Your task to perform on an android device: turn off notifications settings in the gmail app Image 0: 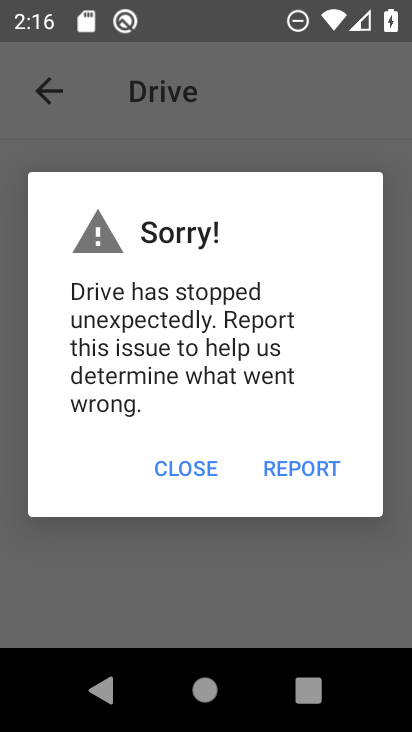
Step 0: press home button
Your task to perform on an android device: turn off notifications settings in the gmail app Image 1: 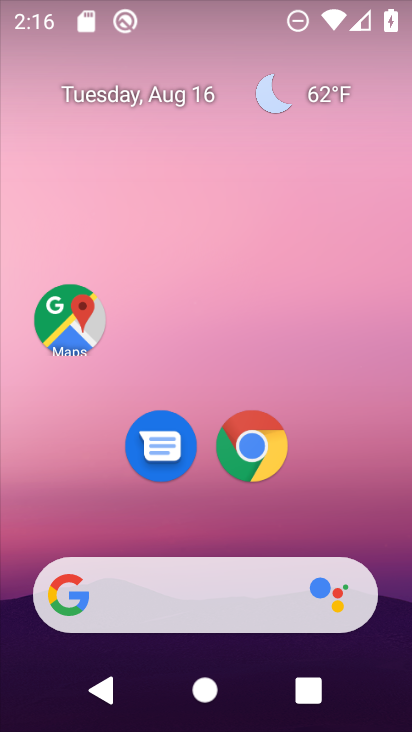
Step 1: drag from (204, 530) to (214, 82)
Your task to perform on an android device: turn off notifications settings in the gmail app Image 2: 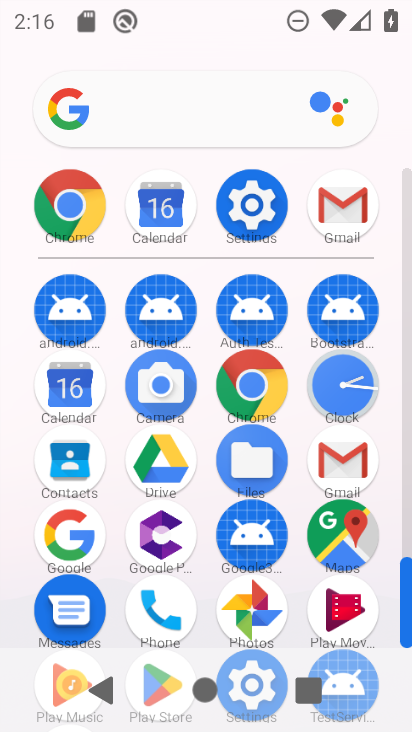
Step 2: click (335, 452)
Your task to perform on an android device: turn off notifications settings in the gmail app Image 3: 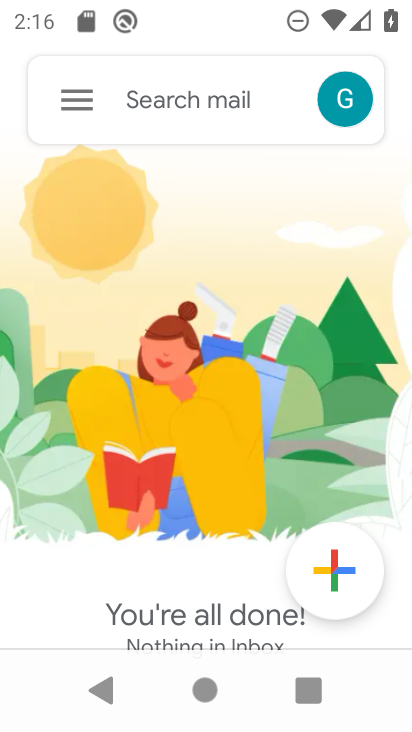
Step 3: click (75, 97)
Your task to perform on an android device: turn off notifications settings in the gmail app Image 4: 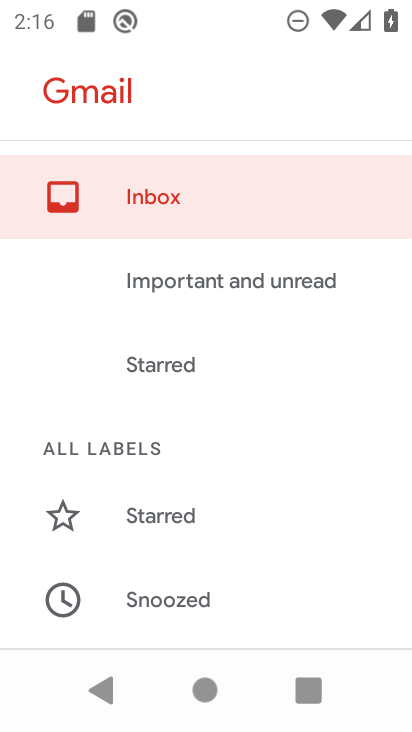
Step 4: drag from (237, 598) to (204, 102)
Your task to perform on an android device: turn off notifications settings in the gmail app Image 5: 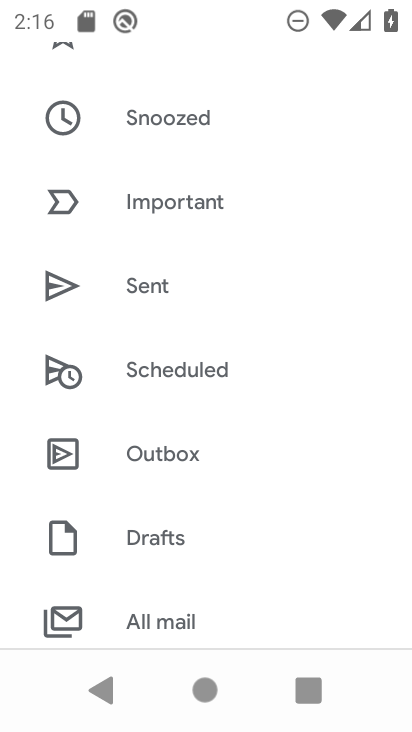
Step 5: drag from (221, 616) to (185, 198)
Your task to perform on an android device: turn off notifications settings in the gmail app Image 6: 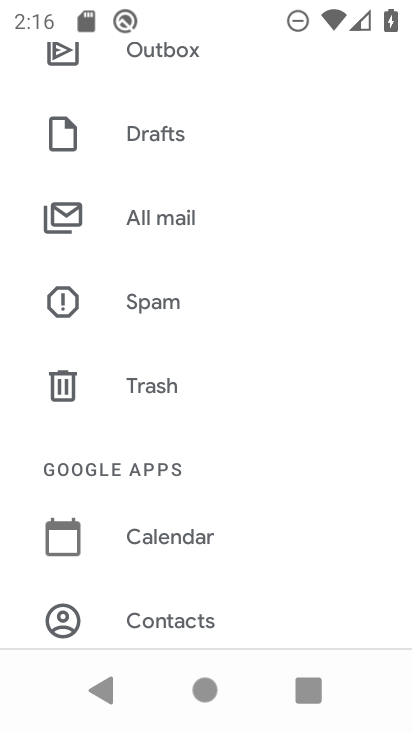
Step 6: drag from (224, 614) to (184, 151)
Your task to perform on an android device: turn off notifications settings in the gmail app Image 7: 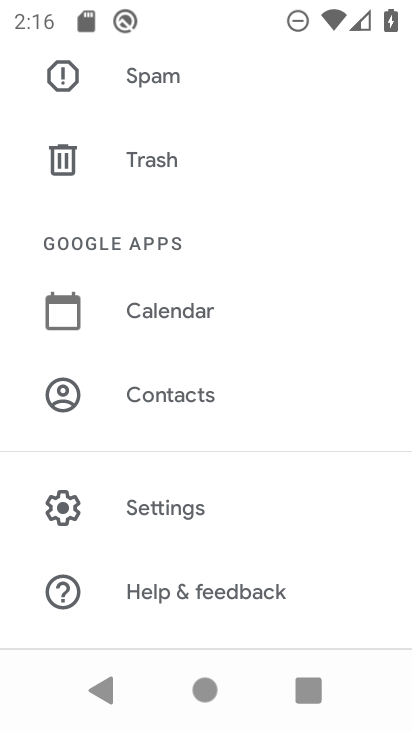
Step 7: click (103, 497)
Your task to perform on an android device: turn off notifications settings in the gmail app Image 8: 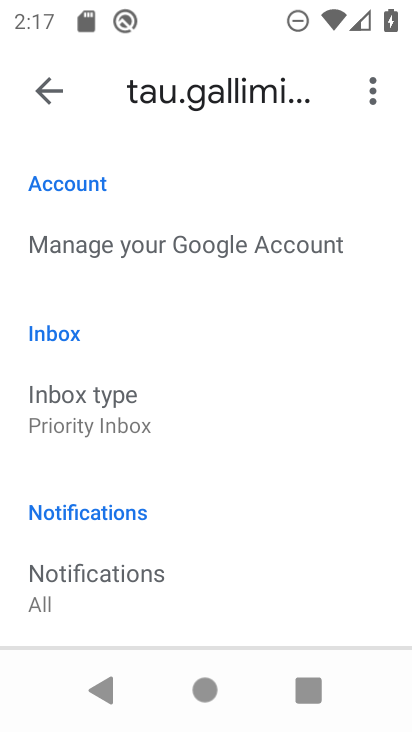
Step 8: click (52, 80)
Your task to perform on an android device: turn off notifications settings in the gmail app Image 9: 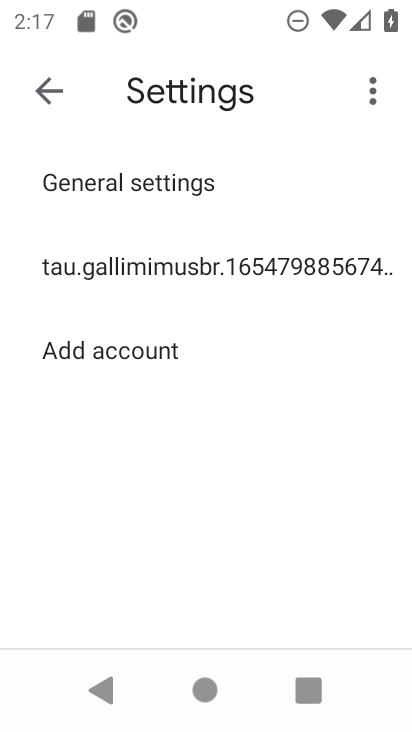
Step 9: click (182, 185)
Your task to perform on an android device: turn off notifications settings in the gmail app Image 10: 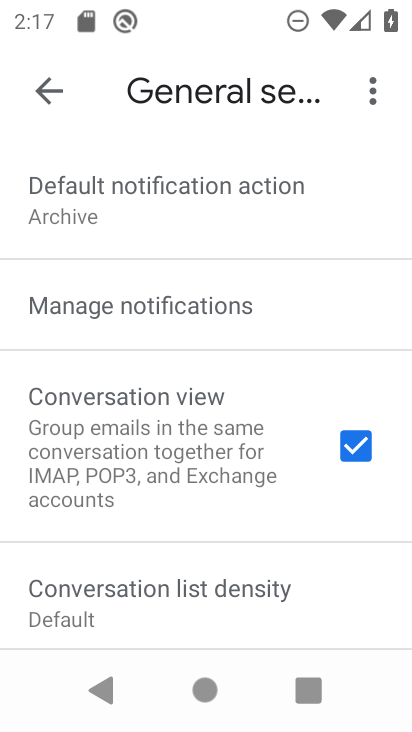
Step 10: click (132, 320)
Your task to perform on an android device: turn off notifications settings in the gmail app Image 11: 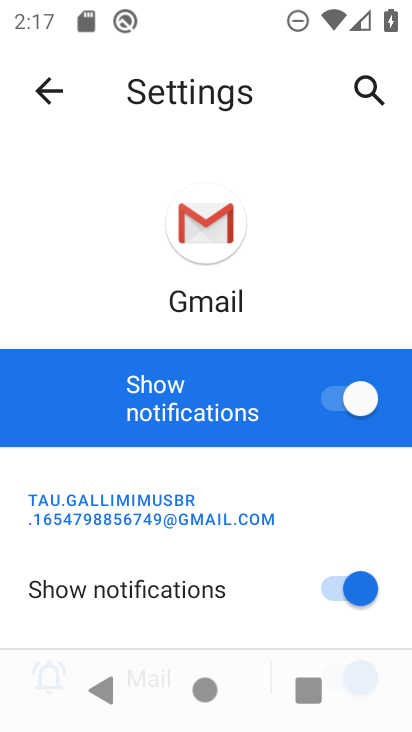
Step 11: click (325, 402)
Your task to perform on an android device: turn off notifications settings in the gmail app Image 12: 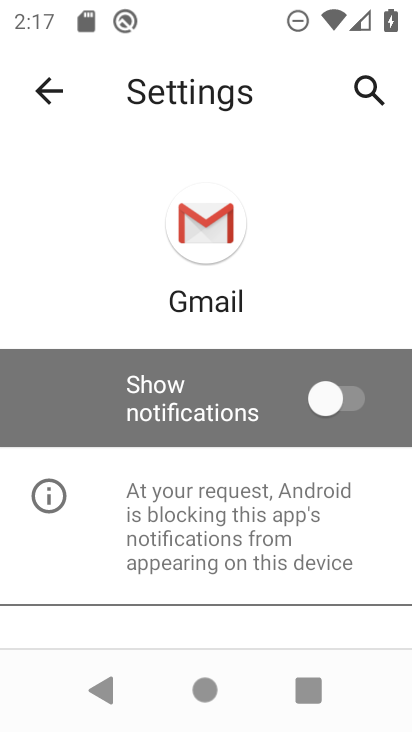
Step 12: task complete